Your task to perform on an android device: toggle data saver in the chrome app Image 0: 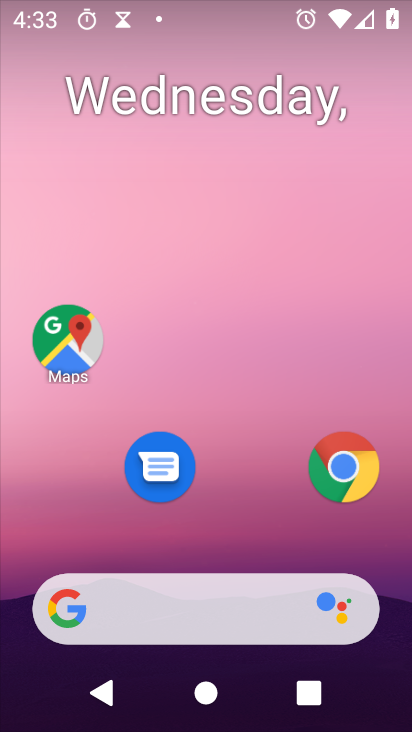
Step 0: click (358, 479)
Your task to perform on an android device: toggle data saver in the chrome app Image 1: 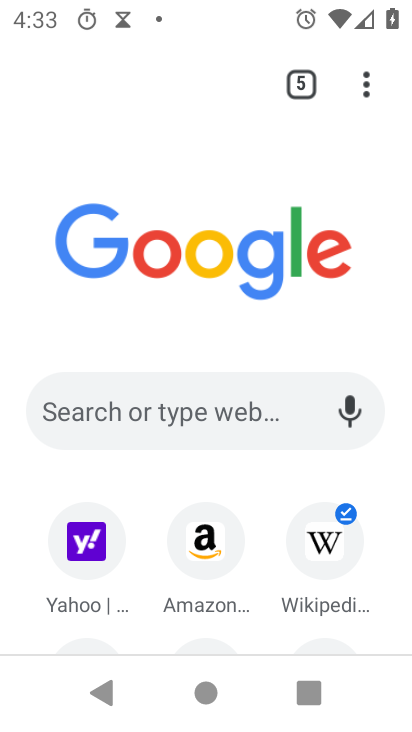
Step 1: click (363, 91)
Your task to perform on an android device: toggle data saver in the chrome app Image 2: 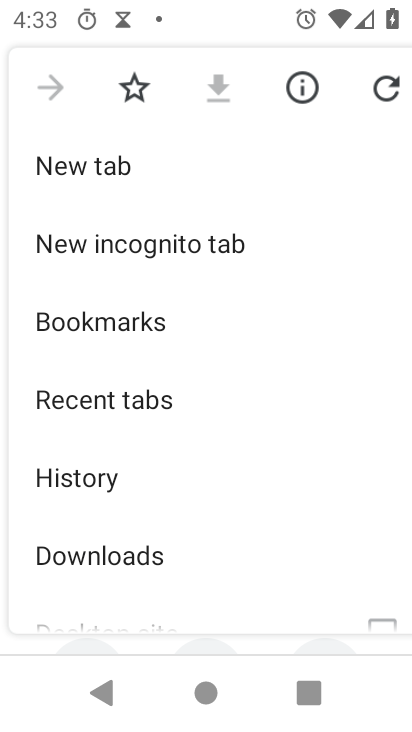
Step 2: drag from (219, 597) to (242, 158)
Your task to perform on an android device: toggle data saver in the chrome app Image 3: 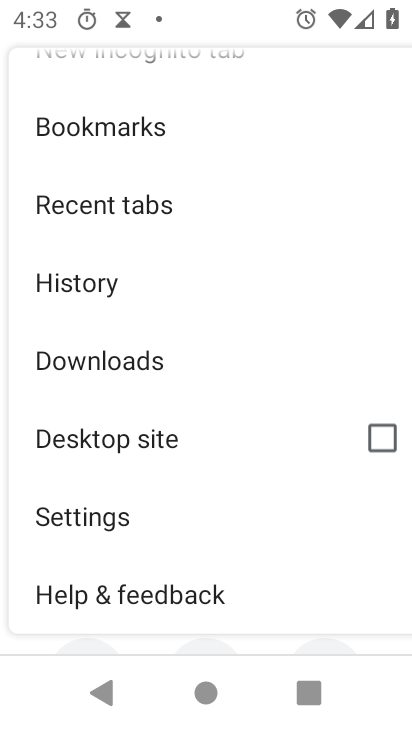
Step 3: click (185, 512)
Your task to perform on an android device: toggle data saver in the chrome app Image 4: 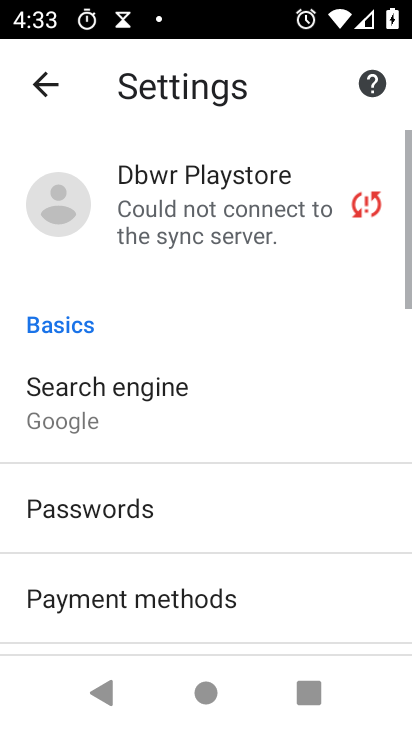
Step 4: drag from (253, 628) to (264, 141)
Your task to perform on an android device: toggle data saver in the chrome app Image 5: 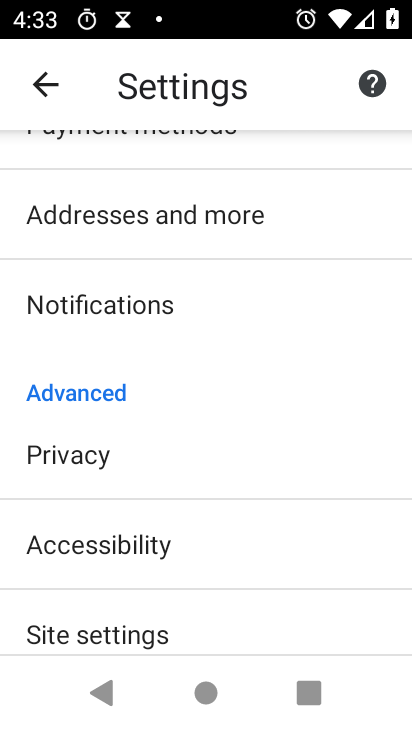
Step 5: drag from (248, 561) to (275, 234)
Your task to perform on an android device: toggle data saver in the chrome app Image 6: 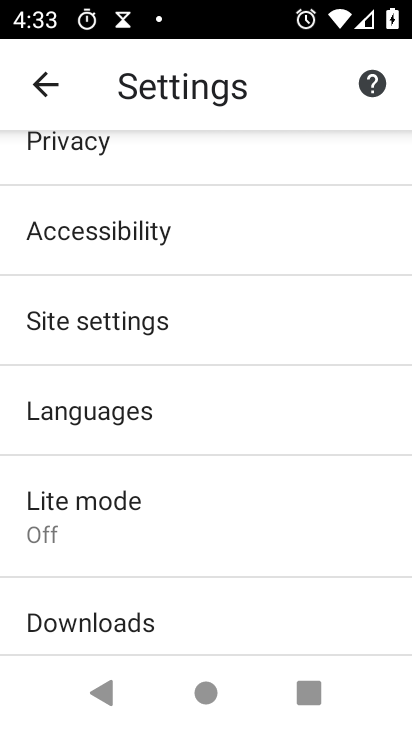
Step 6: click (220, 498)
Your task to perform on an android device: toggle data saver in the chrome app Image 7: 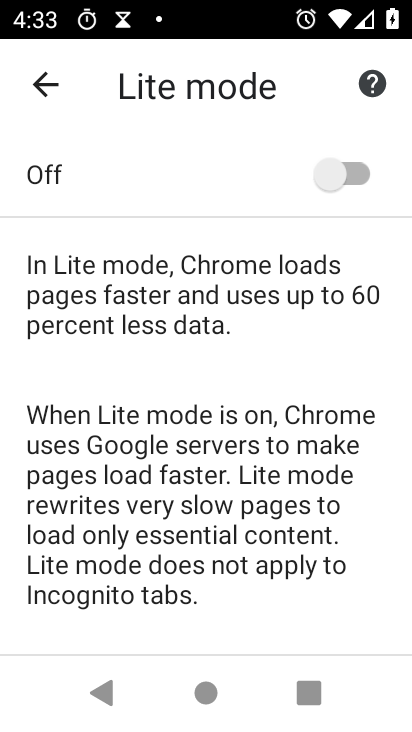
Step 7: click (364, 171)
Your task to perform on an android device: toggle data saver in the chrome app Image 8: 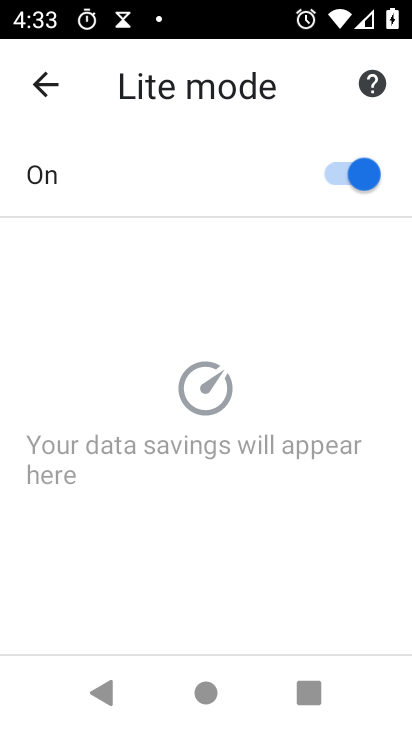
Step 8: task complete